Your task to perform on an android device: toggle priority inbox in the gmail app Image 0: 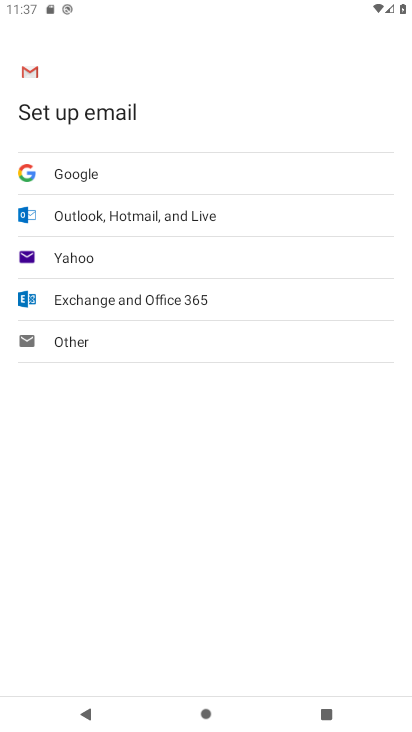
Step 0: press home button
Your task to perform on an android device: toggle priority inbox in the gmail app Image 1: 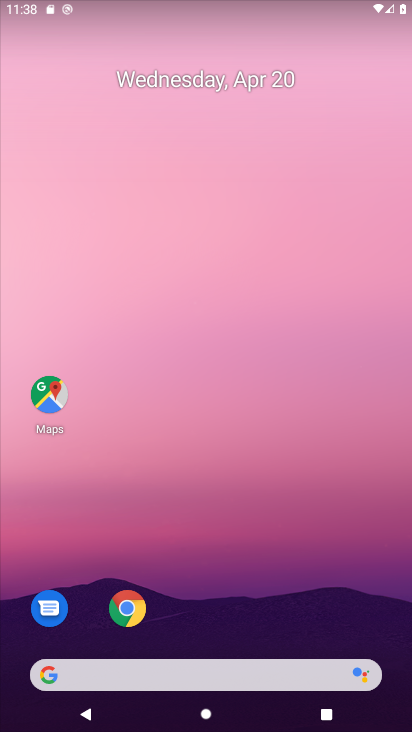
Step 1: drag from (210, 630) to (178, 76)
Your task to perform on an android device: toggle priority inbox in the gmail app Image 2: 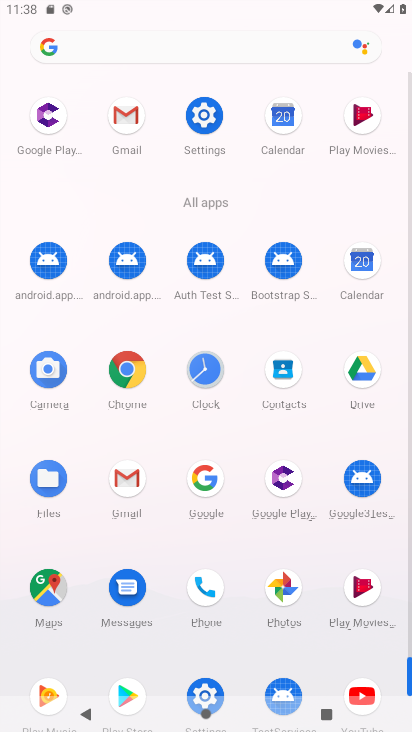
Step 2: click (122, 125)
Your task to perform on an android device: toggle priority inbox in the gmail app Image 3: 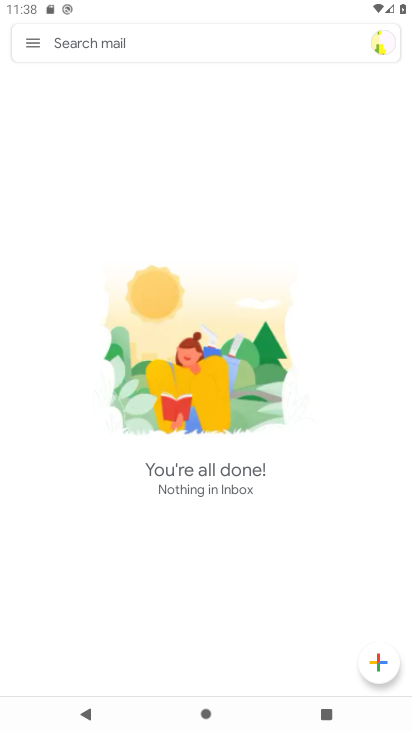
Step 3: click (31, 45)
Your task to perform on an android device: toggle priority inbox in the gmail app Image 4: 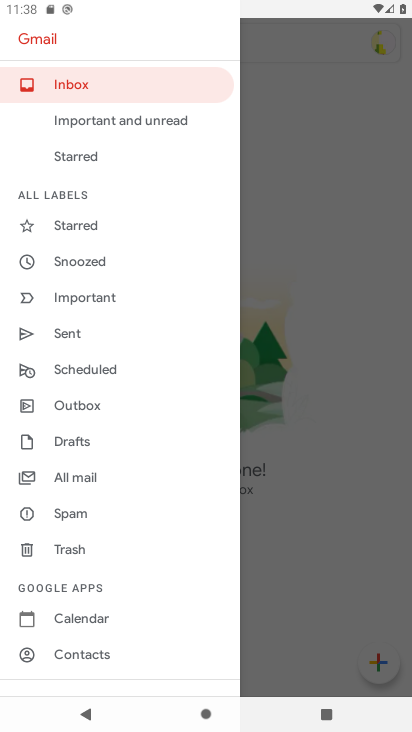
Step 4: drag from (103, 627) to (125, 327)
Your task to perform on an android device: toggle priority inbox in the gmail app Image 5: 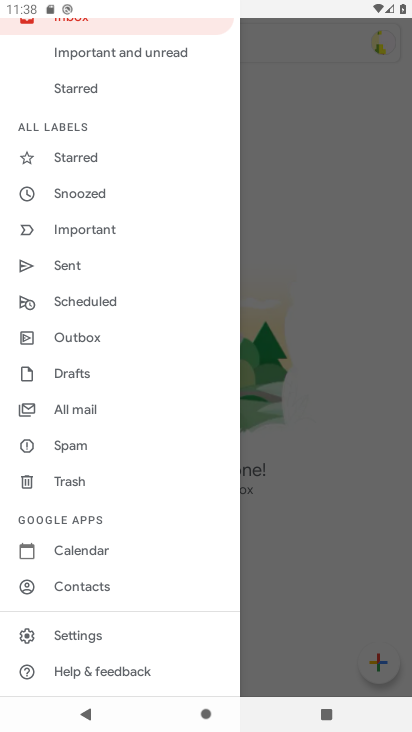
Step 5: click (99, 637)
Your task to perform on an android device: toggle priority inbox in the gmail app Image 6: 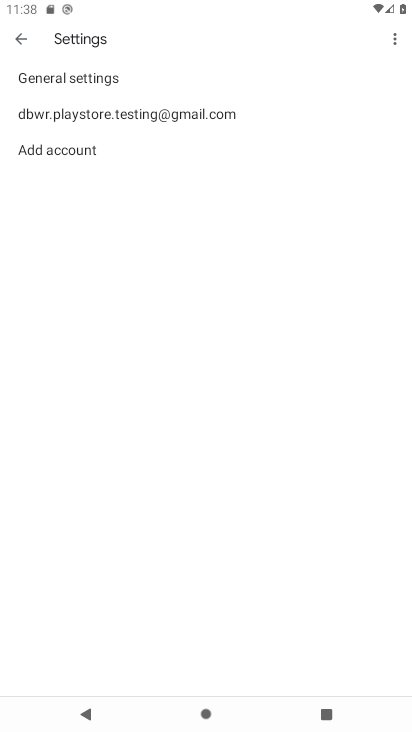
Step 6: click (110, 120)
Your task to perform on an android device: toggle priority inbox in the gmail app Image 7: 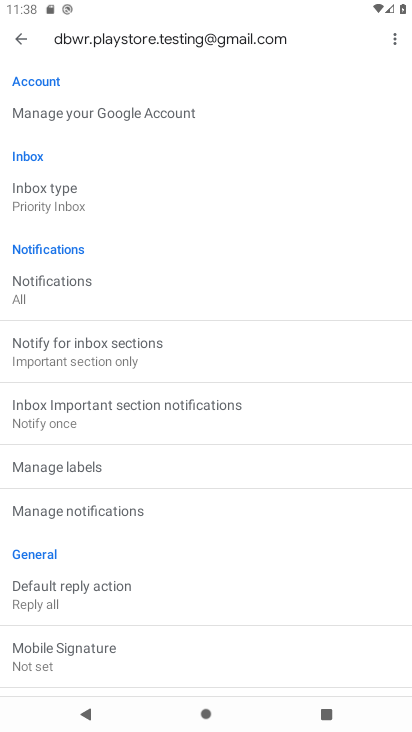
Step 7: click (80, 201)
Your task to perform on an android device: toggle priority inbox in the gmail app Image 8: 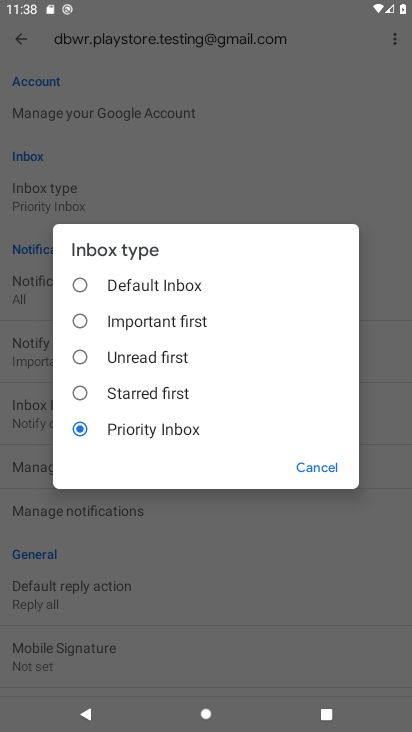
Step 8: click (80, 388)
Your task to perform on an android device: toggle priority inbox in the gmail app Image 9: 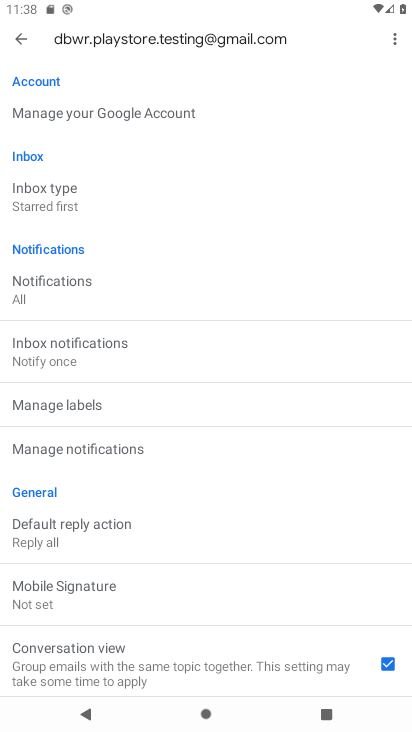
Step 9: task complete